Your task to perform on an android device: all mails in gmail Image 0: 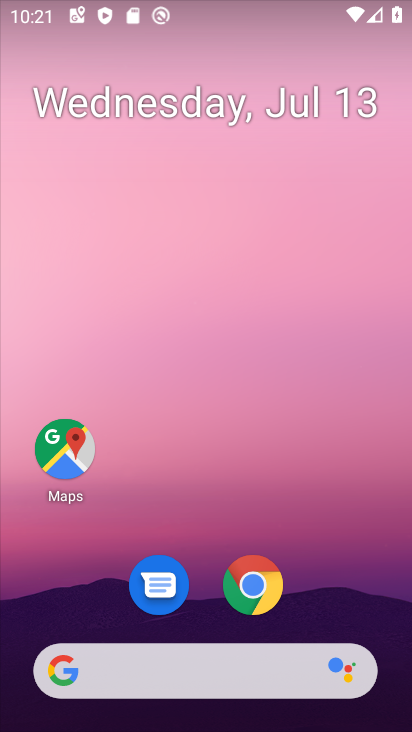
Step 0: drag from (324, 562) to (226, 47)
Your task to perform on an android device: all mails in gmail Image 1: 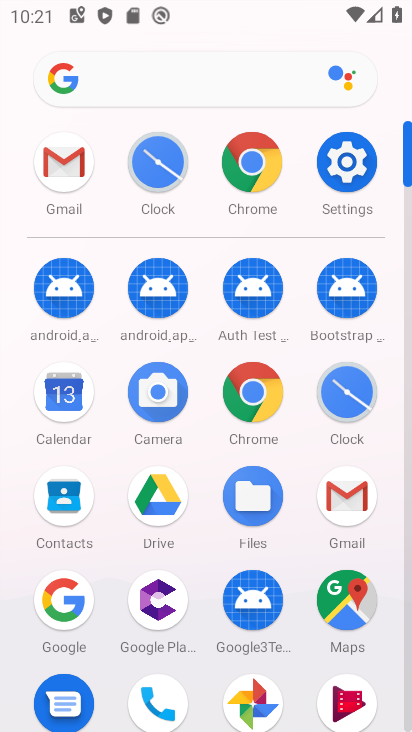
Step 1: click (74, 161)
Your task to perform on an android device: all mails in gmail Image 2: 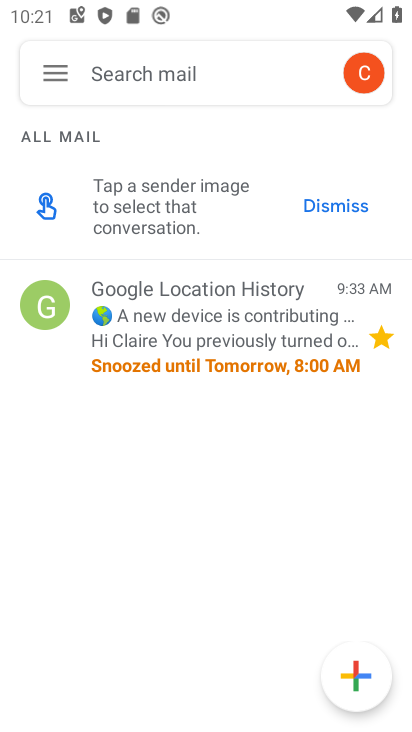
Step 2: click (59, 71)
Your task to perform on an android device: all mails in gmail Image 3: 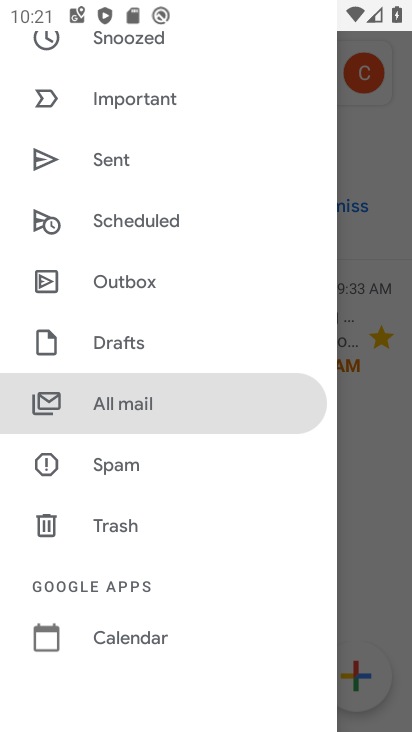
Step 3: click (126, 389)
Your task to perform on an android device: all mails in gmail Image 4: 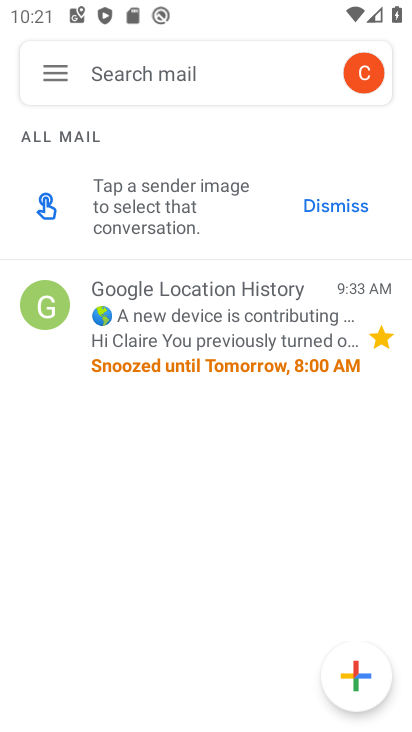
Step 4: task complete